Your task to perform on an android device: open sync settings in chrome Image 0: 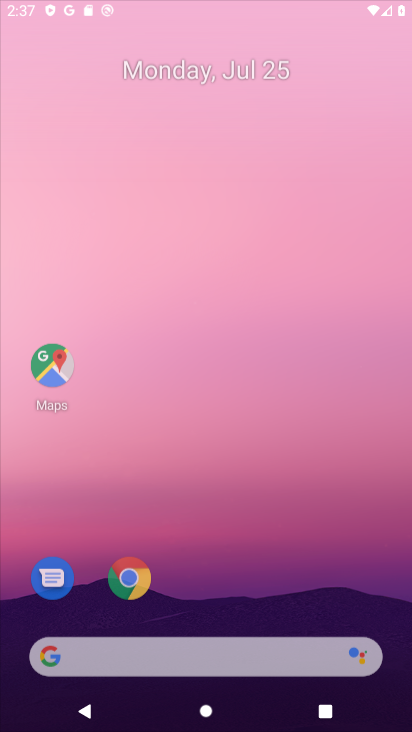
Step 0: press home button
Your task to perform on an android device: open sync settings in chrome Image 1: 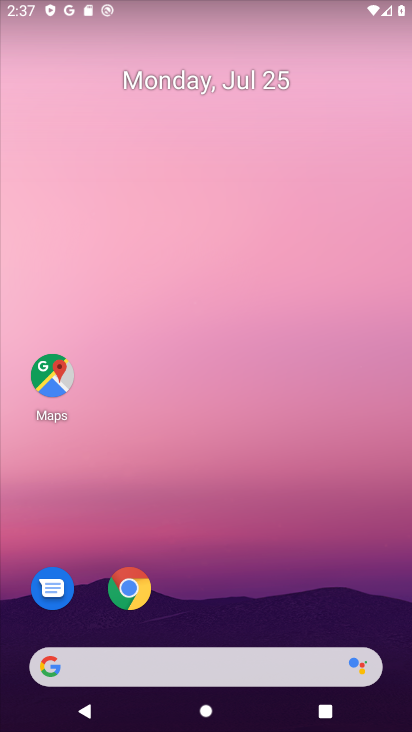
Step 1: click (129, 583)
Your task to perform on an android device: open sync settings in chrome Image 2: 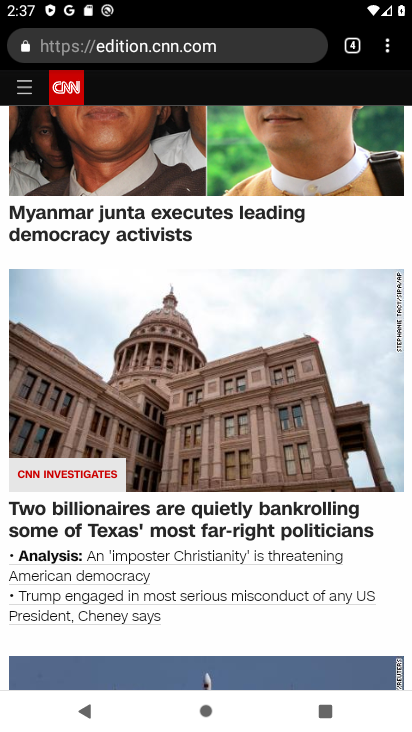
Step 2: click (387, 45)
Your task to perform on an android device: open sync settings in chrome Image 3: 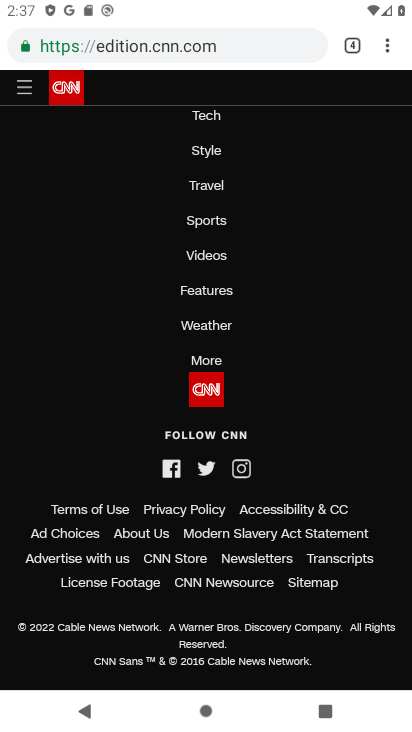
Step 3: click (389, 45)
Your task to perform on an android device: open sync settings in chrome Image 4: 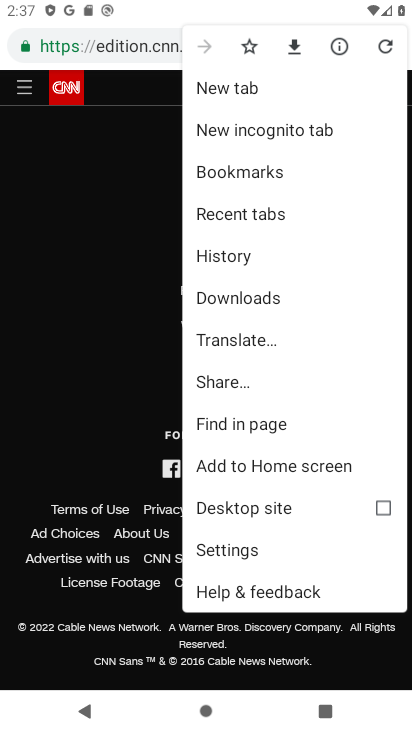
Step 4: click (270, 549)
Your task to perform on an android device: open sync settings in chrome Image 5: 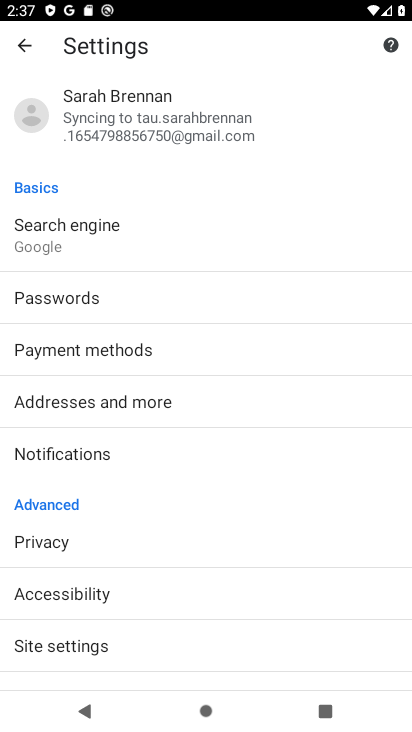
Step 5: click (154, 117)
Your task to perform on an android device: open sync settings in chrome Image 6: 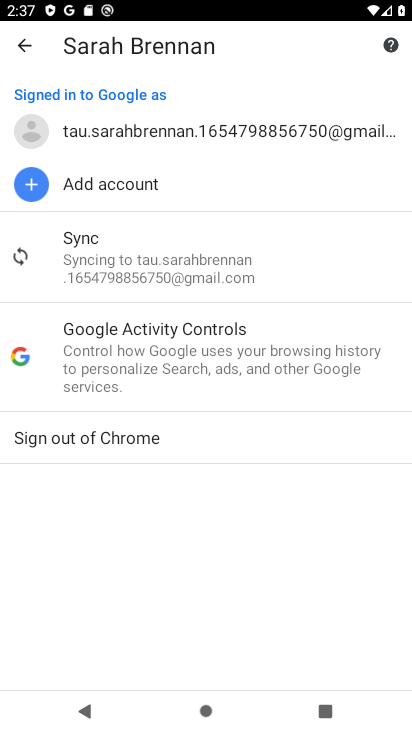
Step 6: click (140, 255)
Your task to perform on an android device: open sync settings in chrome Image 7: 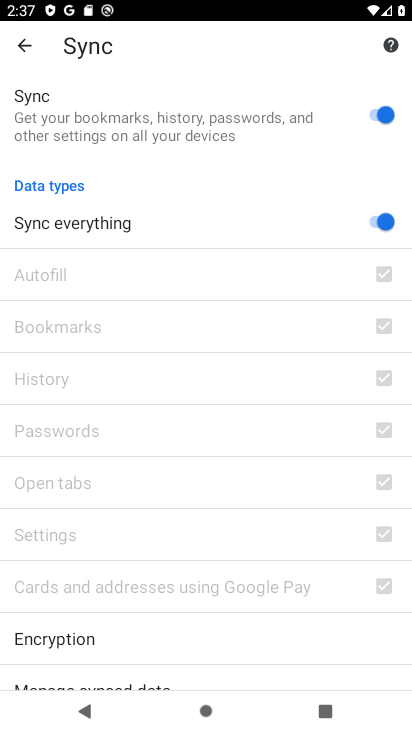
Step 7: task complete